Your task to perform on an android device: open sync settings in chrome Image 0: 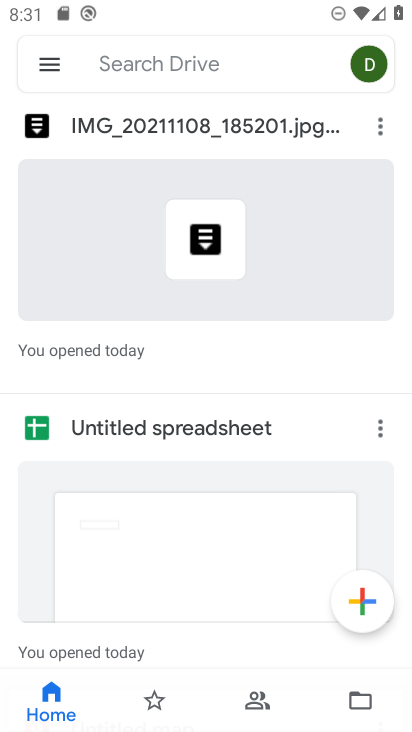
Step 0: press back button
Your task to perform on an android device: open sync settings in chrome Image 1: 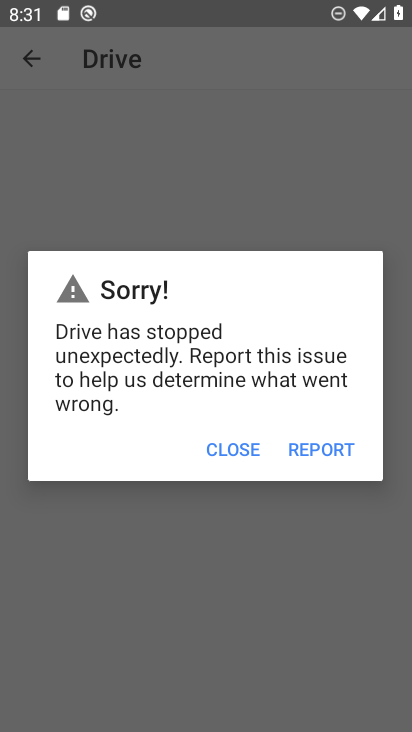
Step 1: press home button
Your task to perform on an android device: open sync settings in chrome Image 2: 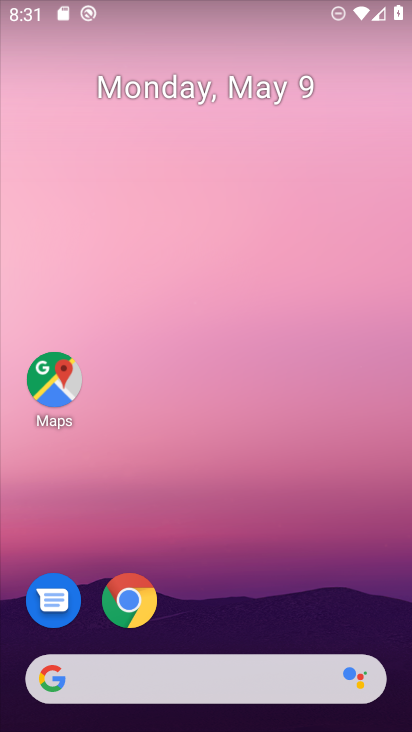
Step 2: drag from (232, 598) to (219, 29)
Your task to perform on an android device: open sync settings in chrome Image 3: 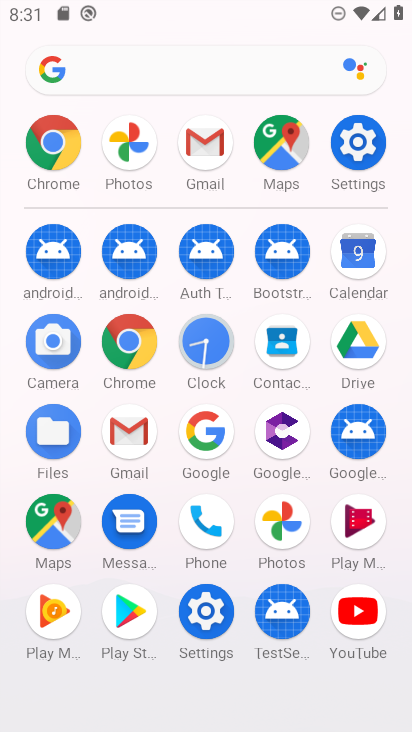
Step 3: click (126, 337)
Your task to perform on an android device: open sync settings in chrome Image 4: 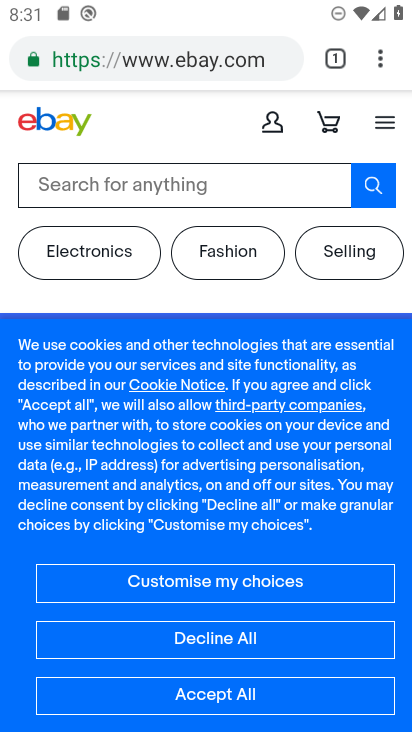
Step 4: drag from (381, 65) to (199, 627)
Your task to perform on an android device: open sync settings in chrome Image 5: 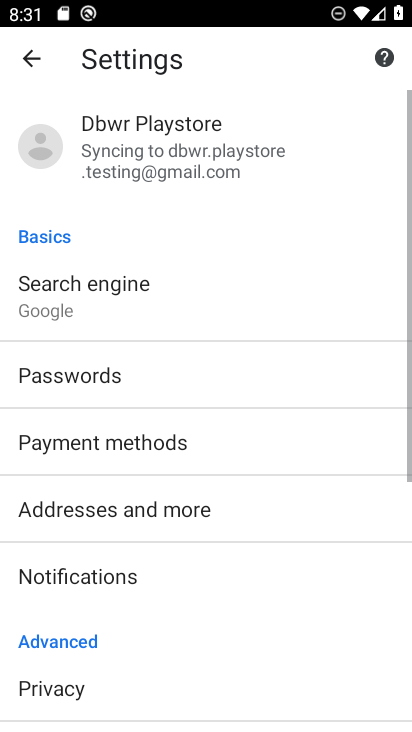
Step 5: drag from (240, 596) to (255, 333)
Your task to perform on an android device: open sync settings in chrome Image 6: 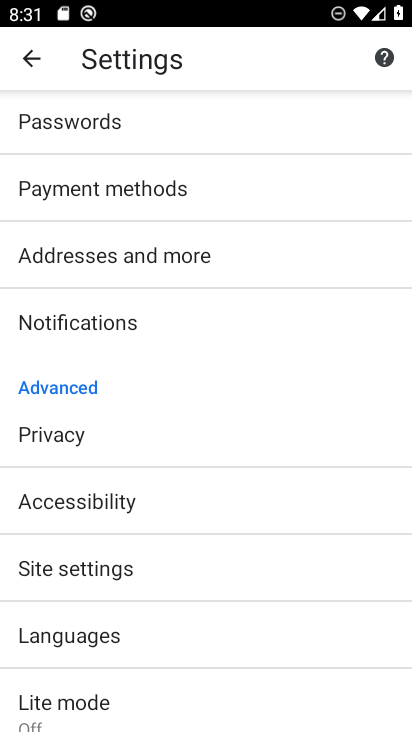
Step 6: drag from (239, 614) to (275, 208)
Your task to perform on an android device: open sync settings in chrome Image 7: 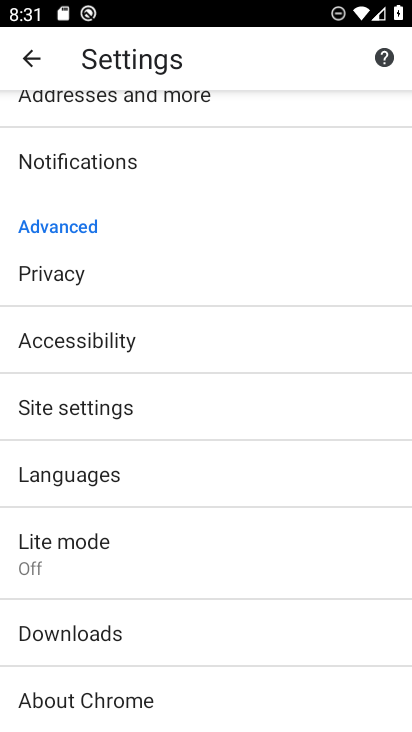
Step 7: drag from (266, 214) to (277, 574)
Your task to perform on an android device: open sync settings in chrome Image 8: 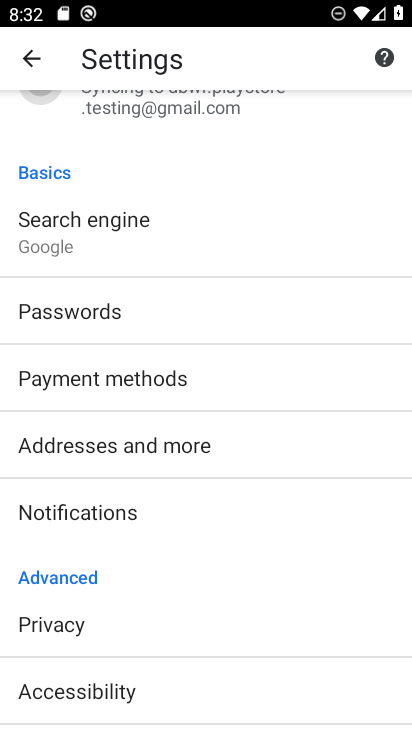
Step 8: drag from (213, 242) to (226, 609)
Your task to perform on an android device: open sync settings in chrome Image 9: 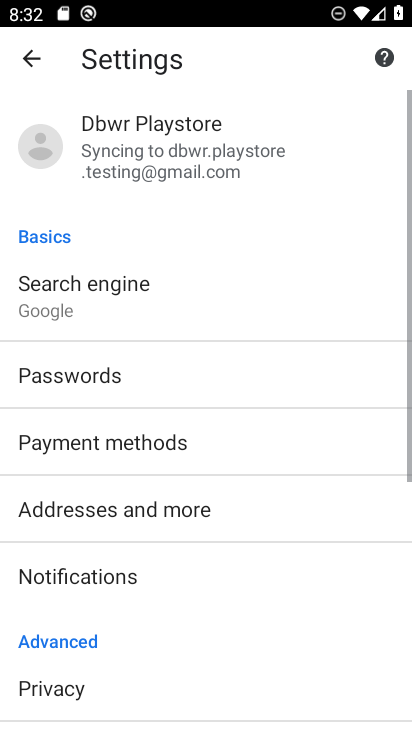
Step 9: click (180, 148)
Your task to perform on an android device: open sync settings in chrome Image 10: 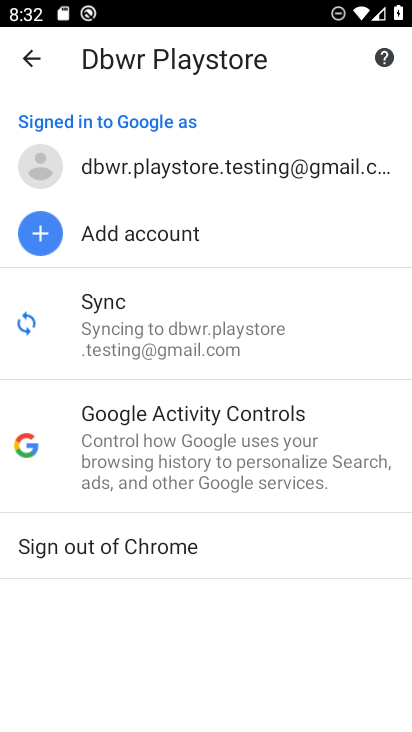
Step 10: click (152, 340)
Your task to perform on an android device: open sync settings in chrome Image 11: 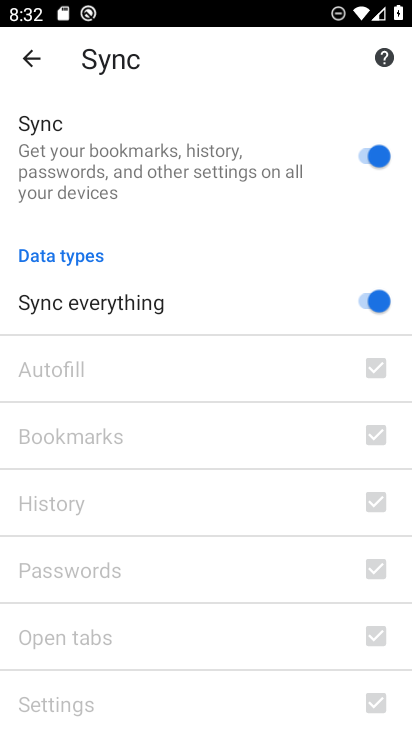
Step 11: task complete